Your task to perform on an android device: Turn on the flashlight Image 0: 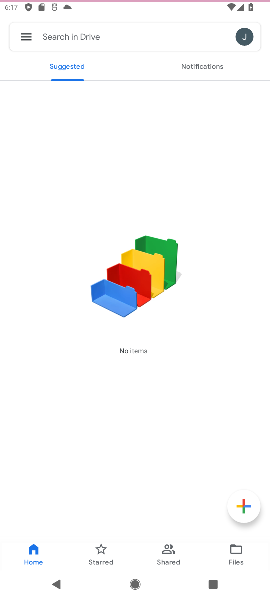
Step 0: press home button
Your task to perform on an android device: Turn on the flashlight Image 1: 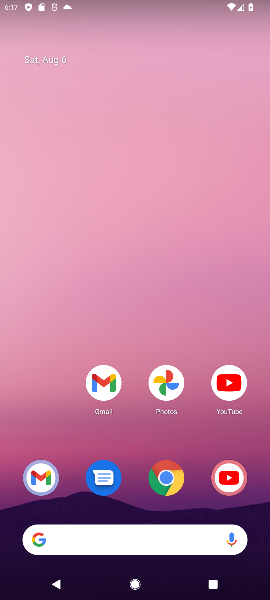
Step 1: task complete